Your task to perform on an android device: delete location history Image 0: 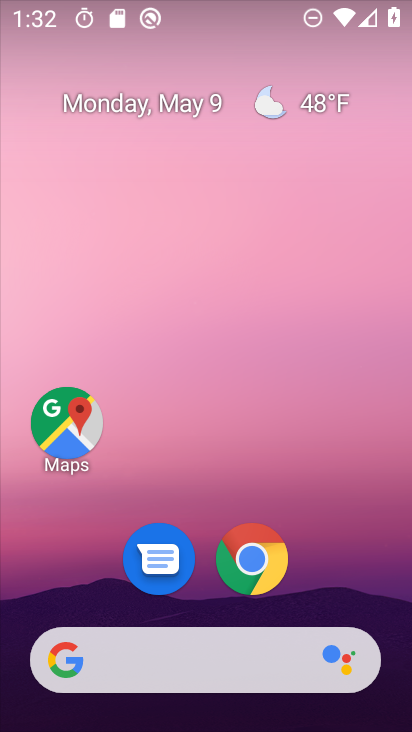
Step 0: drag from (203, 572) to (299, 184)
Your task to perform on an android device: delete location history Image 1: 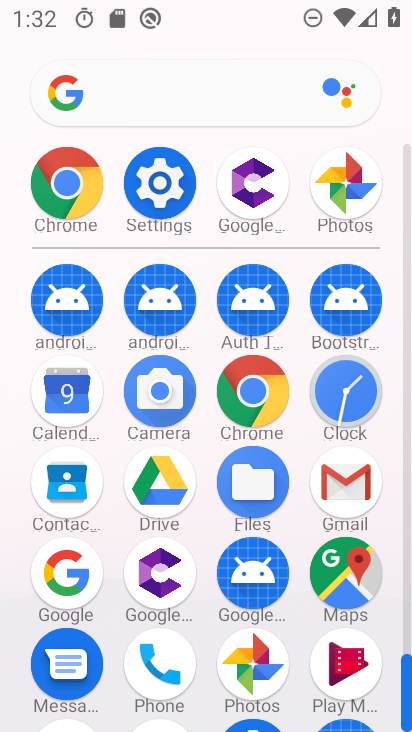
Step 1: drag from (211, 682) to (185, 282)
Your task to perform on an android device: delete location history Image 2: 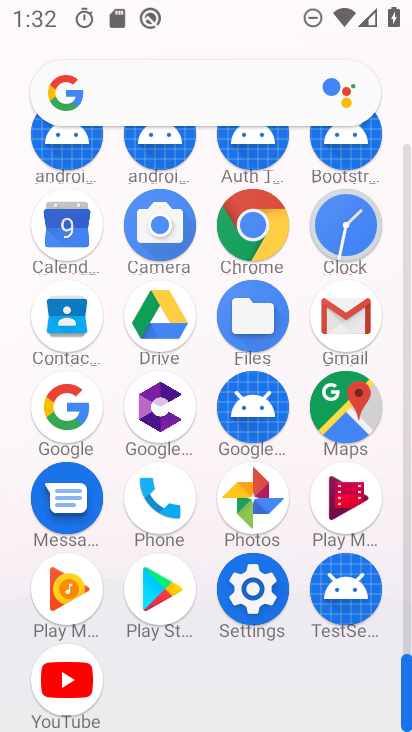
Step 2: click (243, 591)
Your task to perform on an android device: delete location history Image 3: 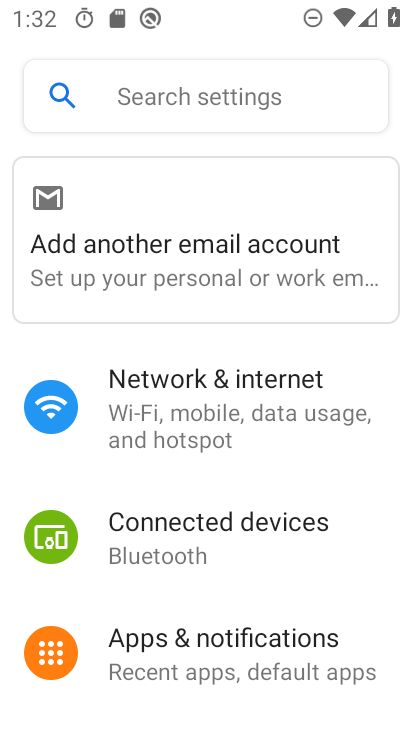
Step 3: drag from (240, 683) to (340, 150)
Your task to perform on an android device: delete location history Image 4: 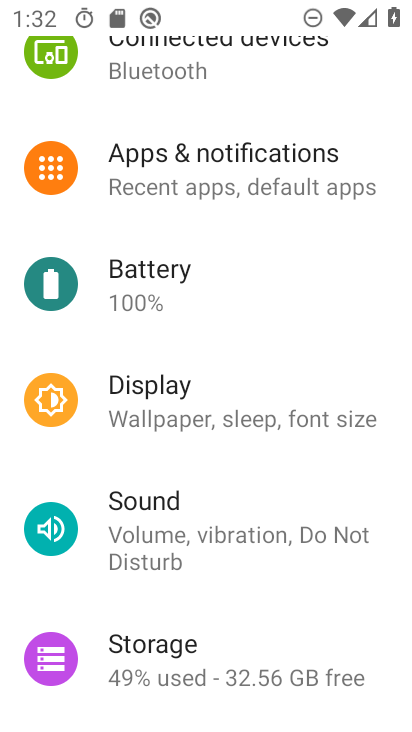
Step 4: drag from (227, 512) to (307, 150)
Your task to perform on an android device: delete location history Image 5: 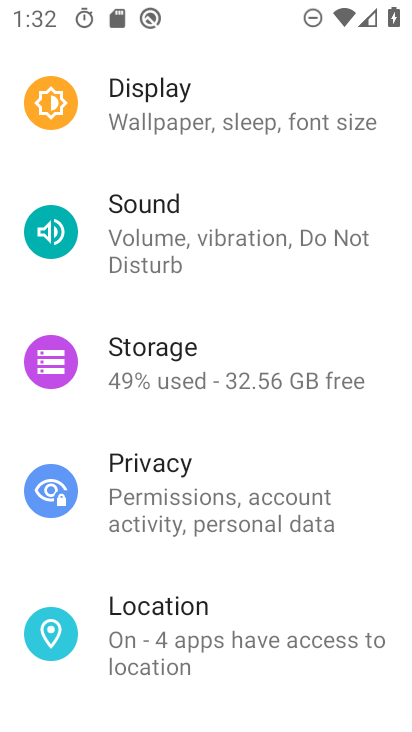
Step 5: click (178, 632)
Your task to perform on an android device: delete location history Image 6: 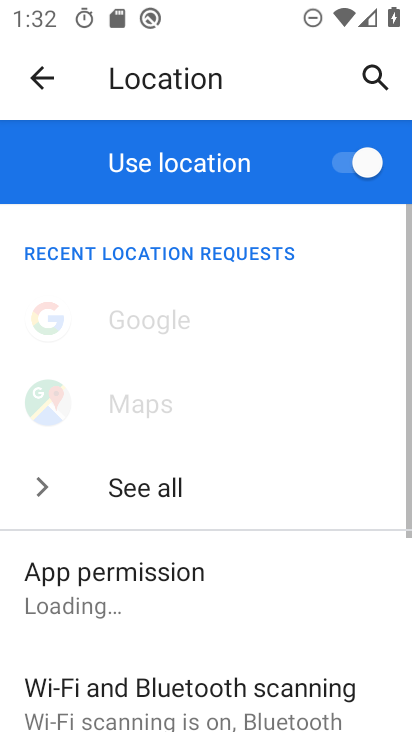
Step 6: drag from (257, 436) to (297, 167)
Your task to perform on an android device: delete location history Image 7: 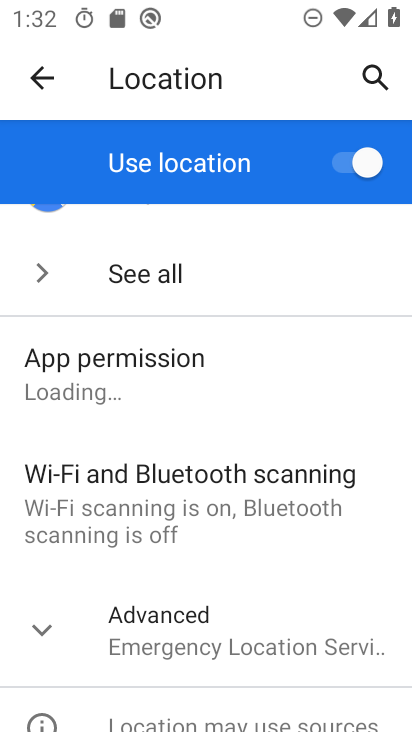
Step 7: click (200, 640)
Your task to perform on an android device: delete location history Image 8: 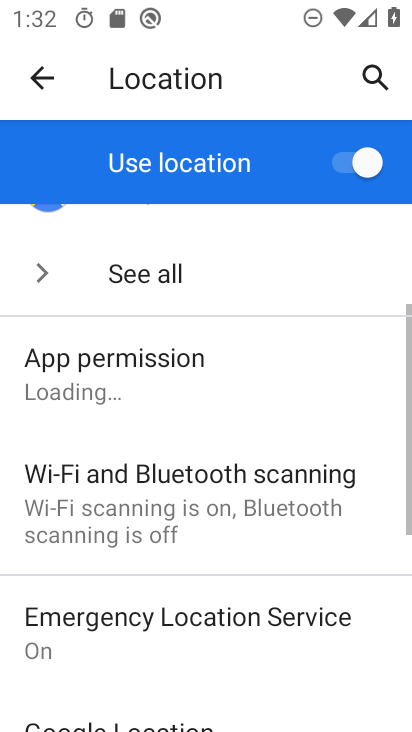
Step 8: drag from (194, 641) to (218, 279)
Your task to perform on an android device: delete location history Image 9: 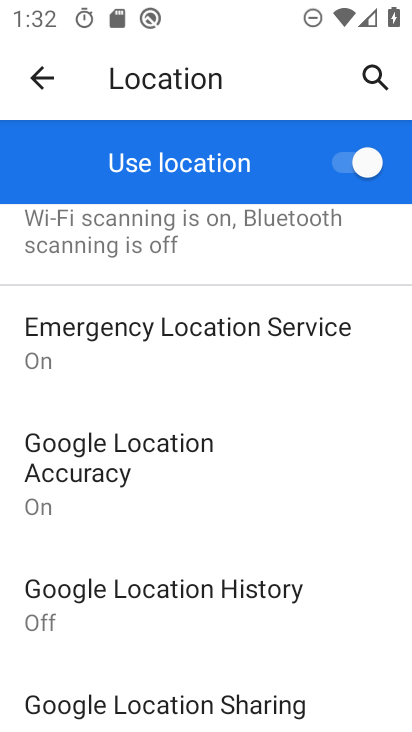
Step 9: click (200, 589)
Your task to perform on an android device: delete location history Image 10: 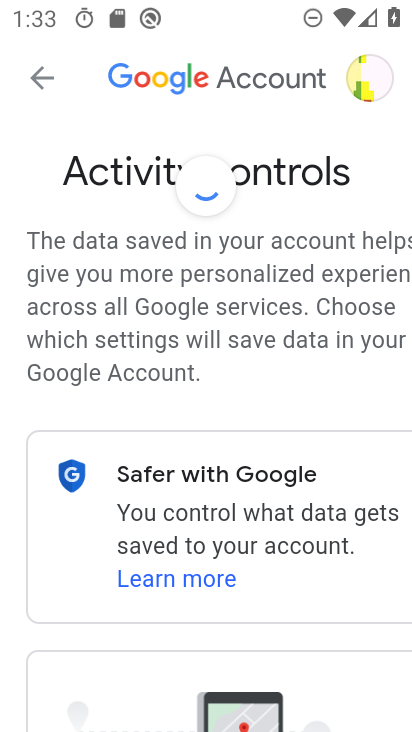
Step 10: drag from (244, 556) to (302, 114)
Your task to perform on an android device: delete location history Image 11: 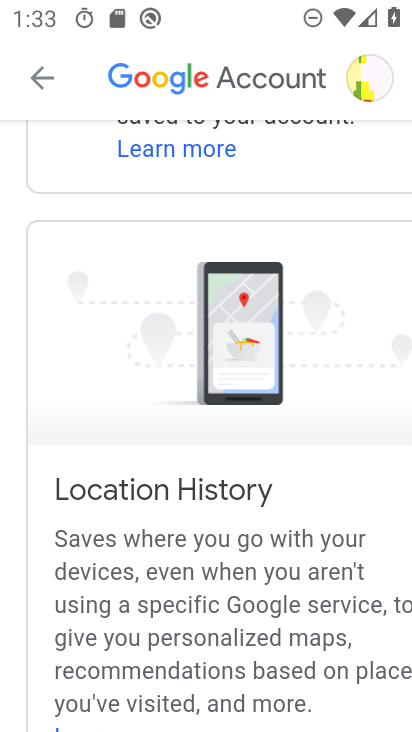
Step 11: drag from (249, 534) to (269, 143)
Your task to perform on an android device: delete location history Image 12: 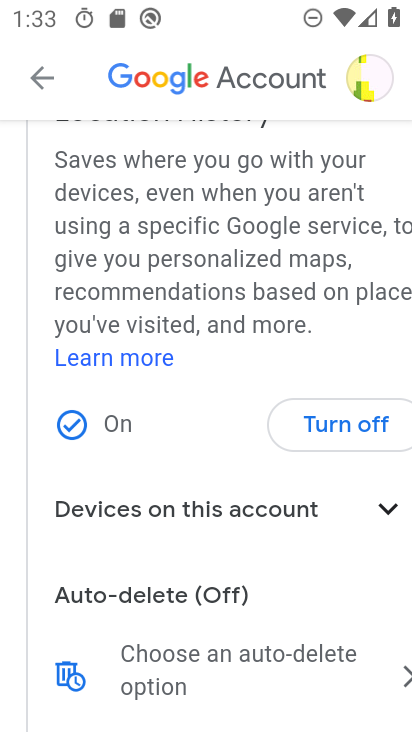
Step 12: click (342, 428)
Your task to perform on an android device: delete location history Image 13: 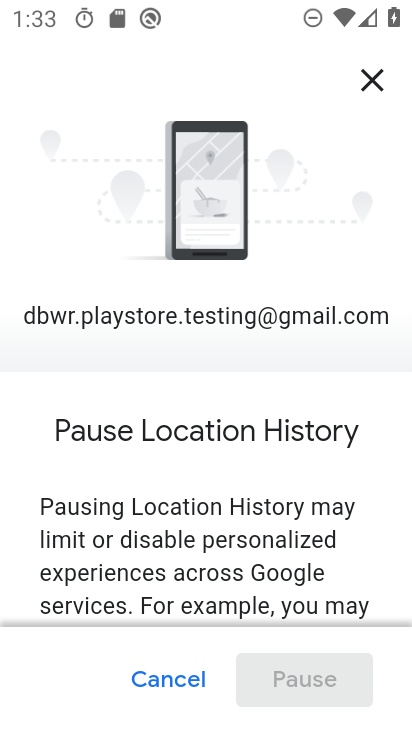
Step 13: drag from (269, 554) to (353, 111)
Your task to perform on an android device: delete location history Image 14: 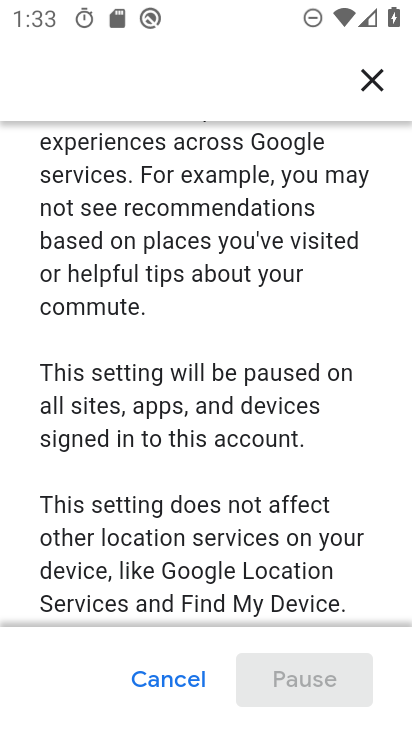
Step 14: drag from (208, 553) to (261, 132)
Your task to perform on an android device: delete location history Image 15: 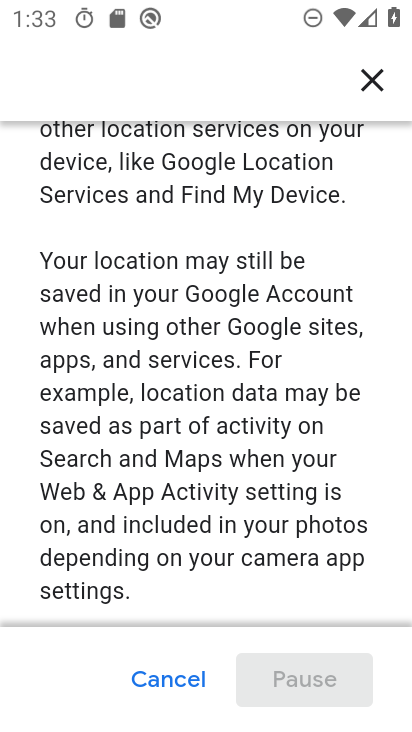
Step 15: drag from (222, 546) to (322, 140)
Your task to perform on an android device: delete location history Image 16: 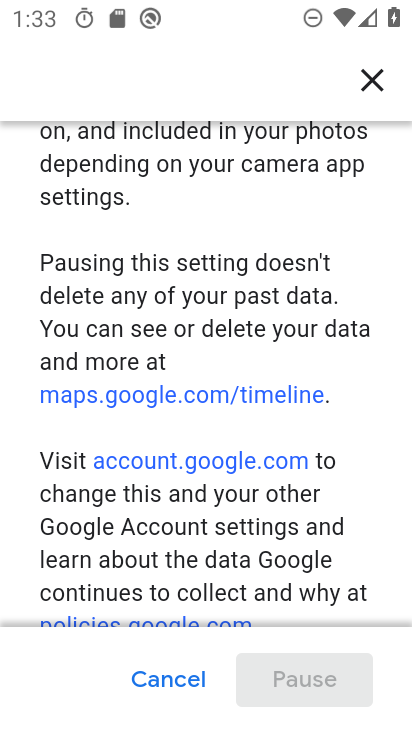
Step 16: drag from (238, 535) to (334, 143)
Your task to perform on an android device: delete location history Image 17: 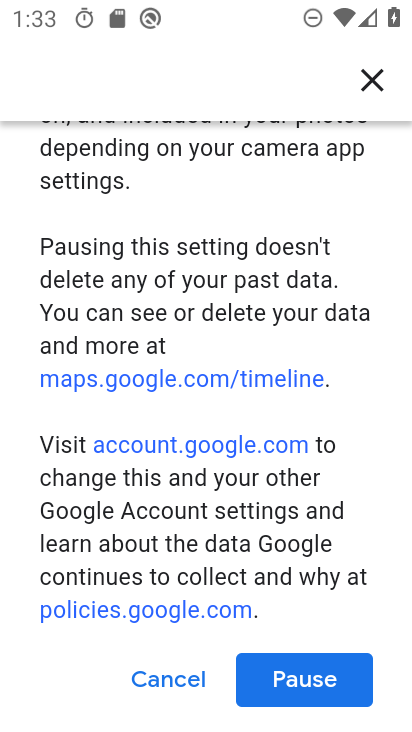
Step 17: click (286, 678)
Your task to perform on an android device: delete location history Image 18: 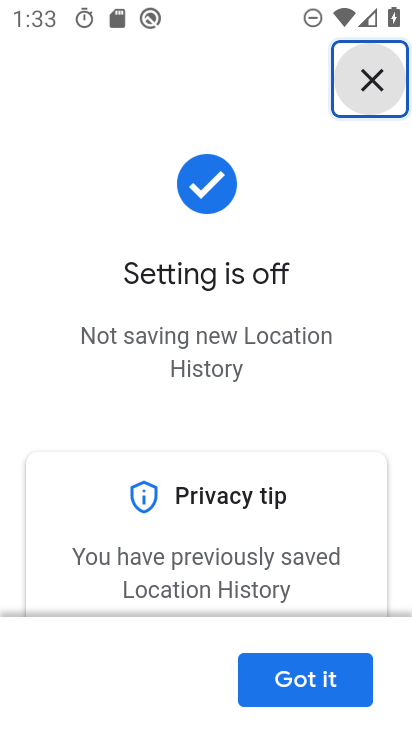
Step 18: task complete